Your task to perform on an android device: Go to Google maps Image 0: 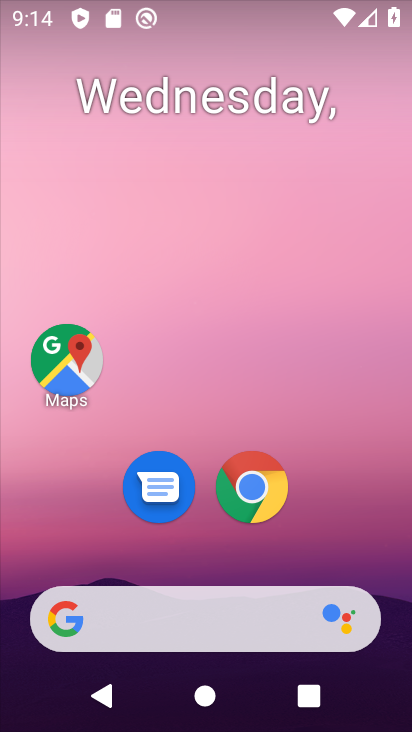
Step 0: click (78, 376)
Your task to perform on an android device: Go to Google maps Image 1: 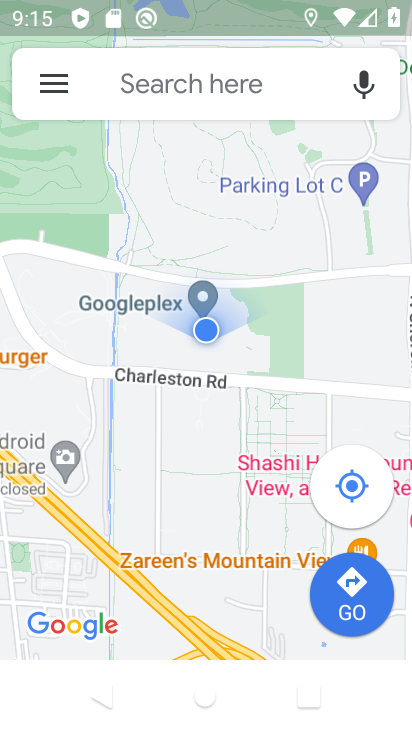
Step 1: task complete